Your task to perform on an android device: turn smart compose on in the gmail app Image 0: 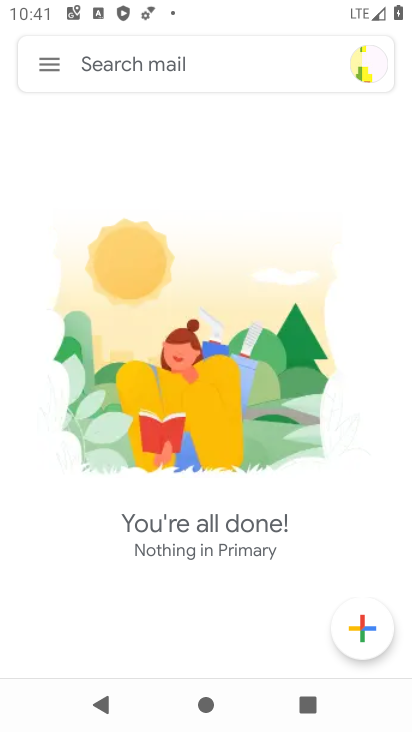
Step 0: press home button
Your task to perform on an android device: turn smart compose on in the gmail app Image 1: 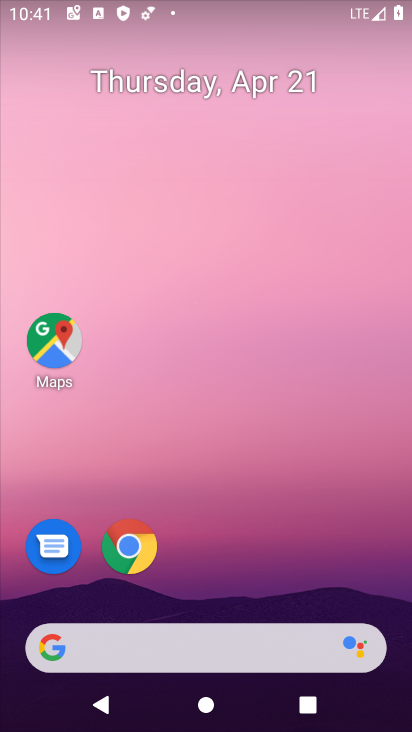
Step 1: drag from (395, 620) to (297, 88)
Your task to perform on an android device: turn smart compose on in the gmail app Image 2: 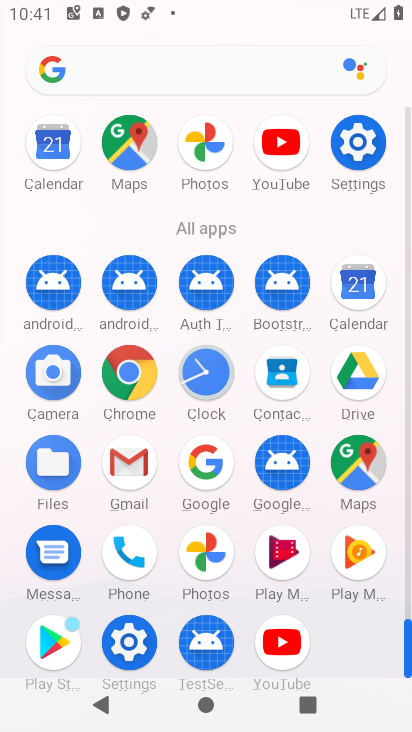
Step 2: click (126, 459)
Your task to perform on an android device: turn smart compose on in the gmail app Image 3: 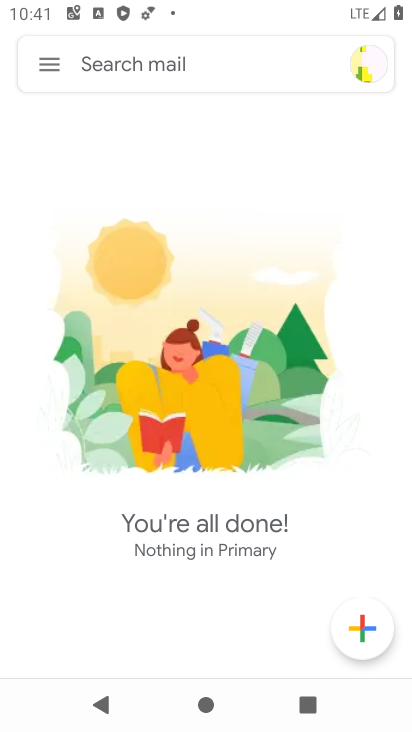
Step 3: click (48, 63)
Your task to perform on an android device: turn smart compose on in the gmail app Image 4: 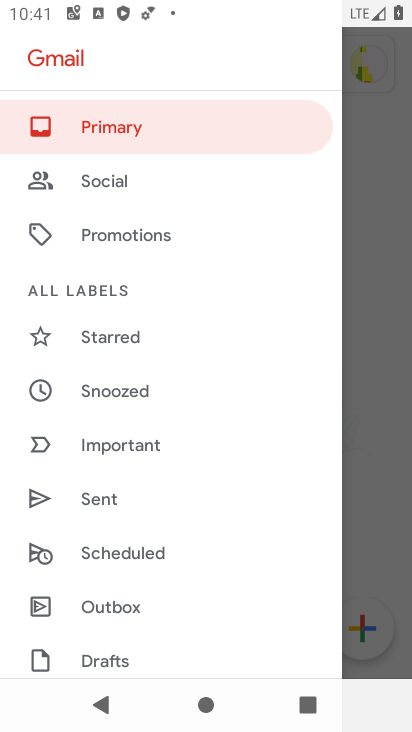
Step 4: drag from (209, 545) to (214, 186)
Your task to perform on an android device: turn smart compose on in the gmail app Image 5: 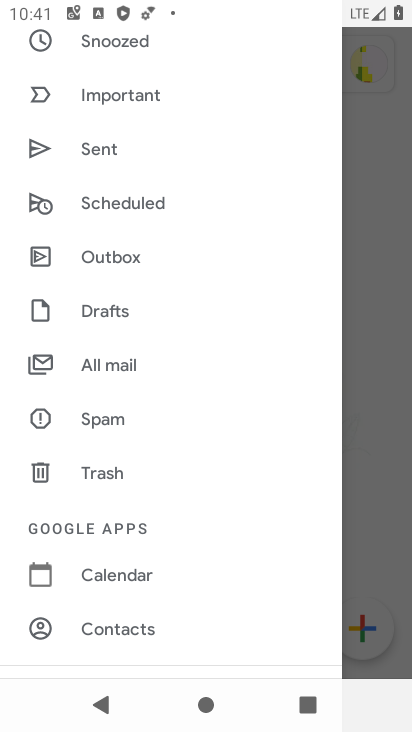
Step 5: drag from (201, 589) to (195, 196)
Your task to perform on an android device: turn smart compose on in the gmail app Image 6: 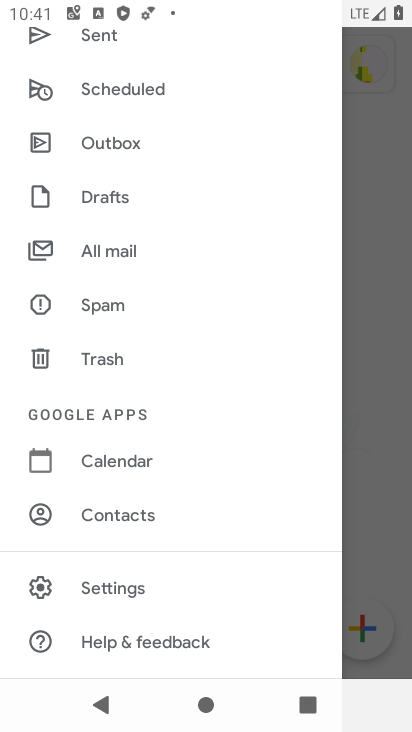
Step 6: click (93, 588)
Your task to perform on an android device: turn smart compose on in the gmail app Image 7: 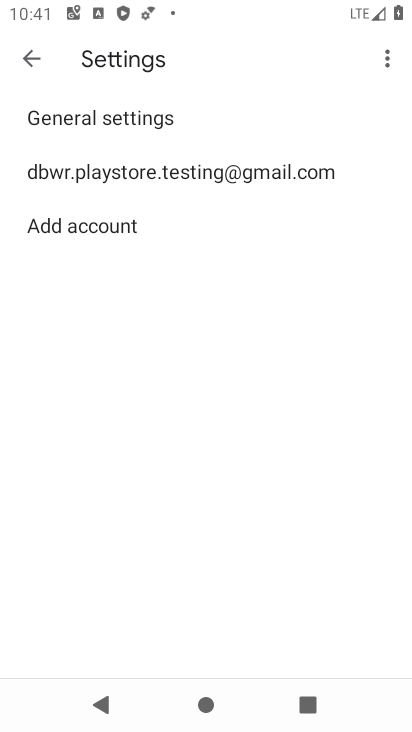
Step 7: click (138, 166)
Your task to perform on an android device: turn smart compose on in the gmail app Image 8: 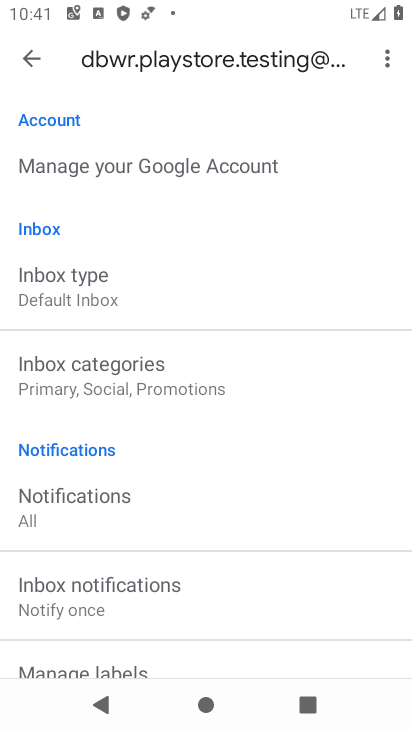
Step 8: task complete